Your task to perform on an android device: check android version Image 0: 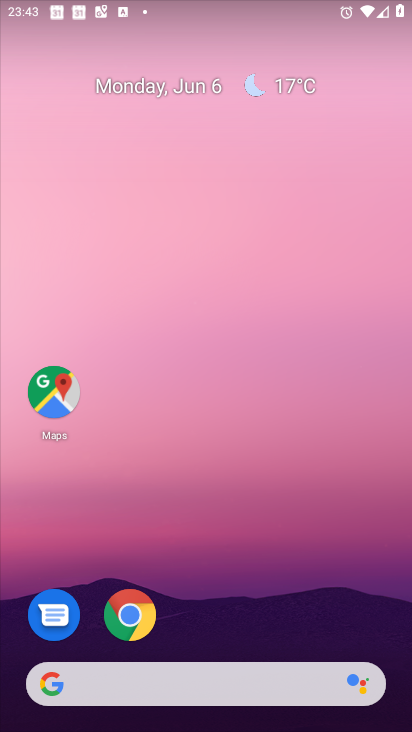
Step 0: drag from (392, 718) to (289, 89)
Your task to perform on an android device: check android version Image 1: 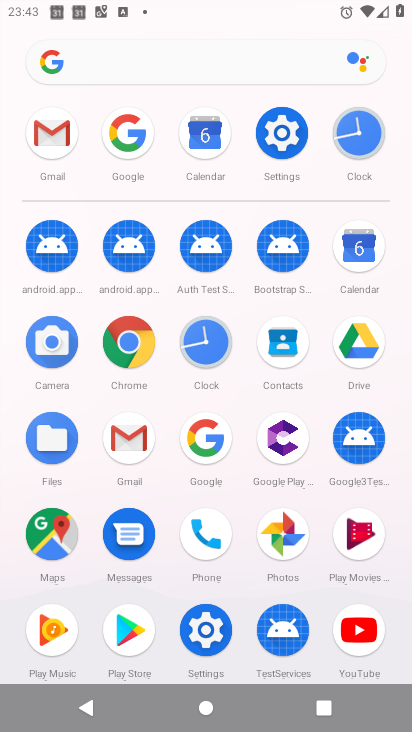
Step 1: click (295, 123)
Your task to perform on an android device: check android version Image 2: 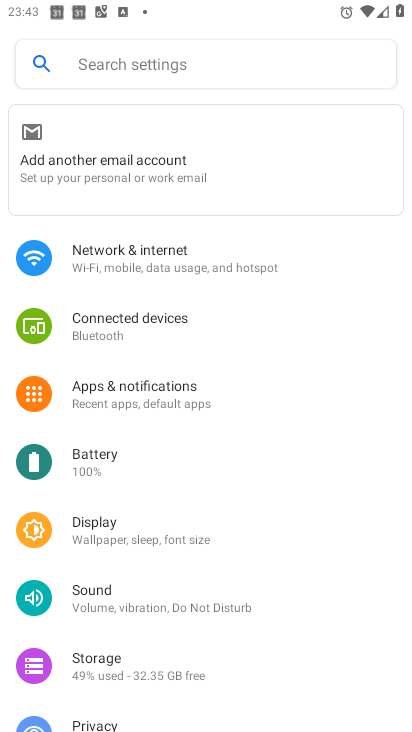
Step 2: drag from (292, 702) to (247, 98)
Your task to perform on an android device: check android version Image 3: 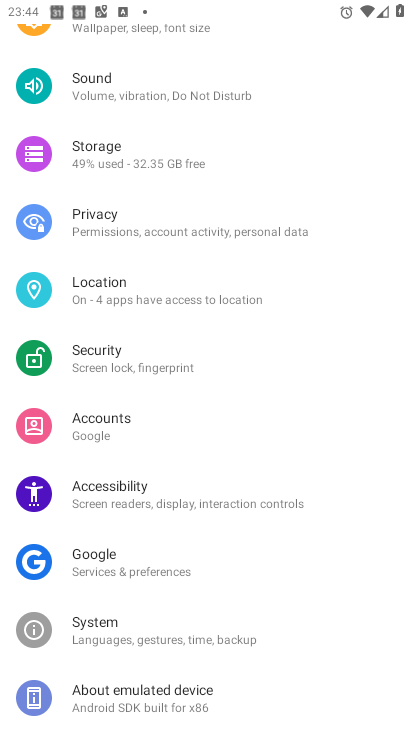
Step 3: click (140, 696)
Your task to perform on an android device: check android version Image 4: 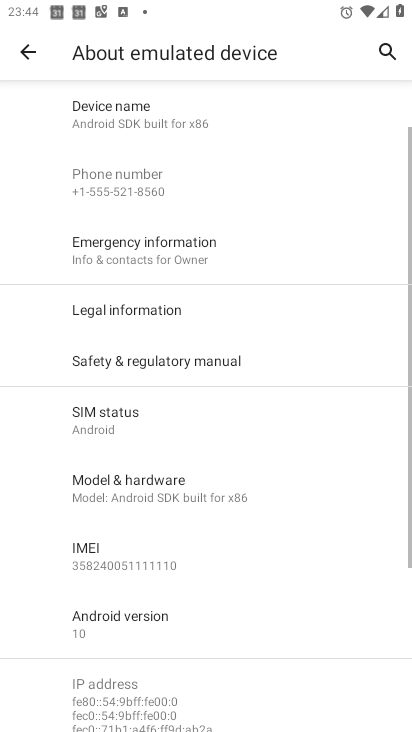
Step 4: click (130, 628)
Your task to perform on an android device: check android version Image 5: 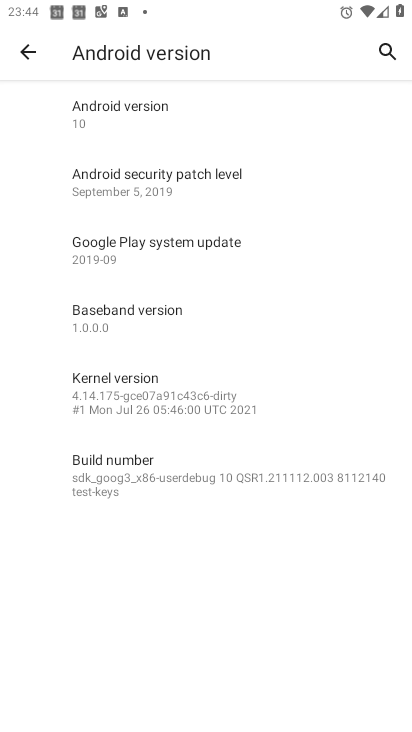
Step 5: click (124, 99)
Your task to perform on an android device: check android version Image 6: 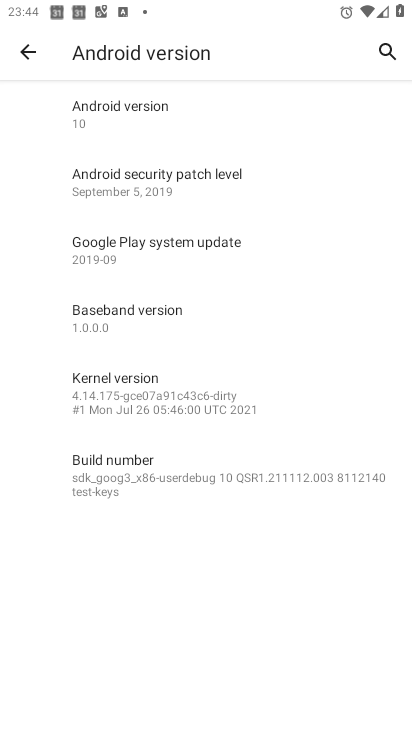
Step 6: click (111, 112)
Your task to perform on an android device: check android version Image 7: 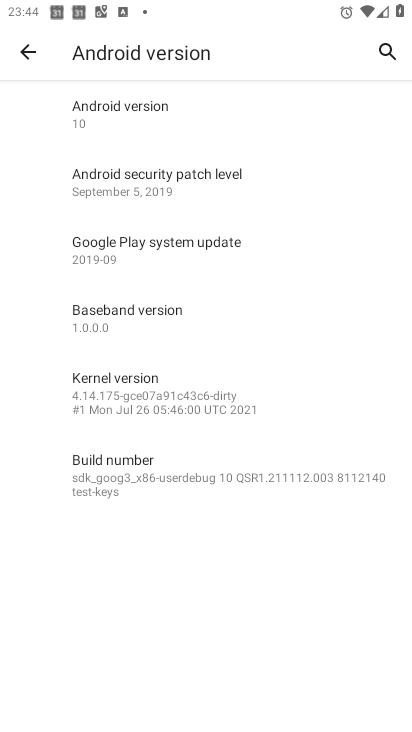
Step 7: task complete